Your task to perform on an android device: Open Youtube and go to the subscriptions tab Image 0: 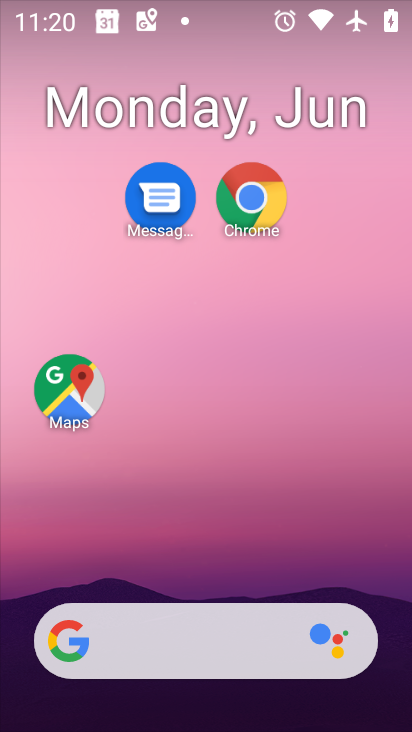
Step 0: drag from (202, 575) to (229, 106)
Your task to perform on an android device: Open Youtube and go to the subscriptions tab Image 1: 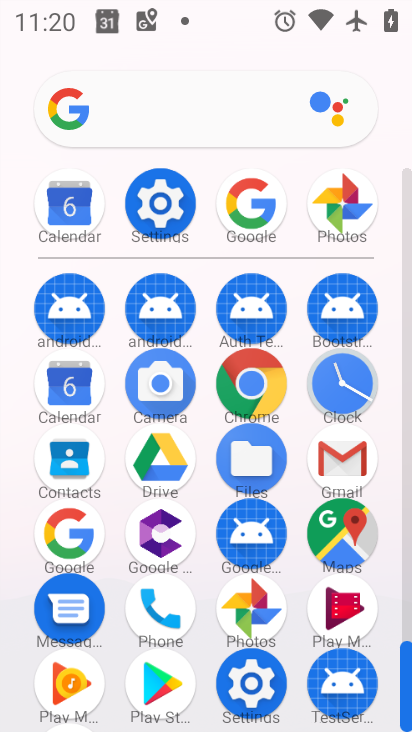
Step 1: drag from (288, 585) to (285, 297)
Your task to perform on an android device: Open Youtube and go to the subscriptions tab Image 2: 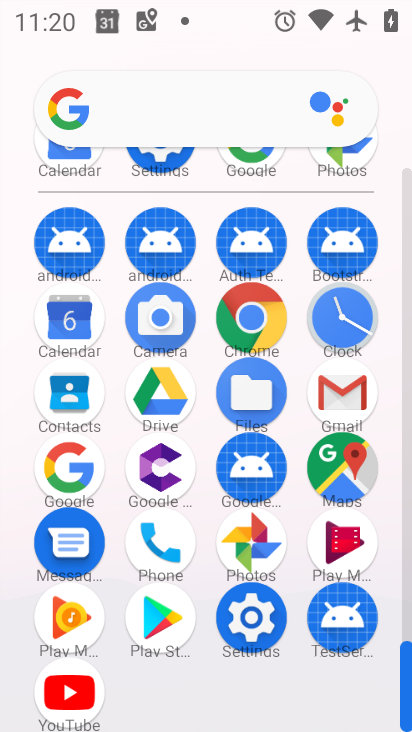
Step 2: click (73, 672)
Your task to perform on an android device: Open Youtube and go to the subscriptions tab Image 3: 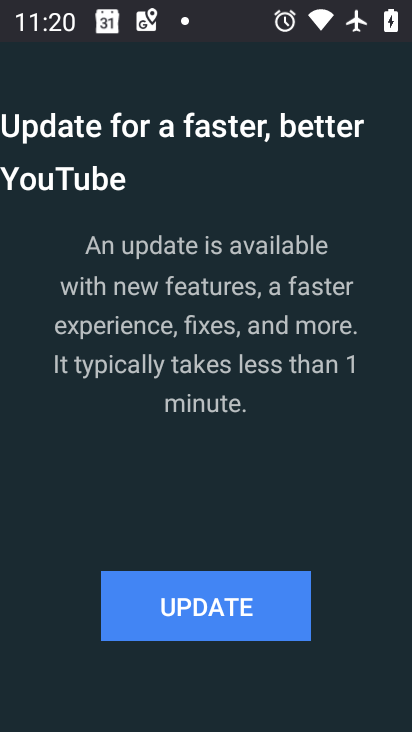
Step 3: click (229, 629)
Your task to perform on an android device: Open Youtube and go to the subscriptions tab Image 4: 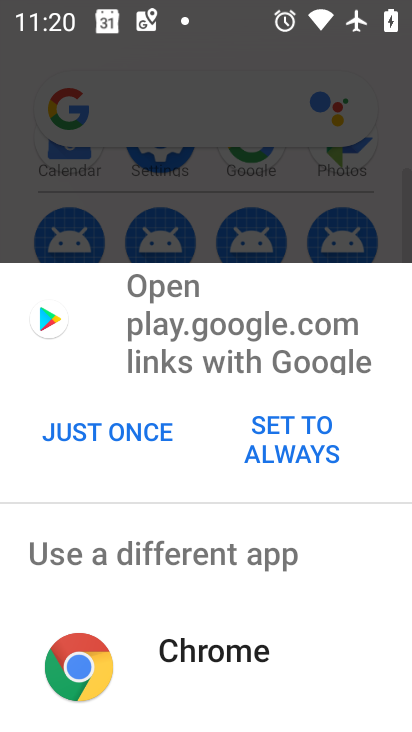
Step 4: click (169, 421)
Your task to perform on an android device: Open Youtube and go to the subscriptions tab Image 5: 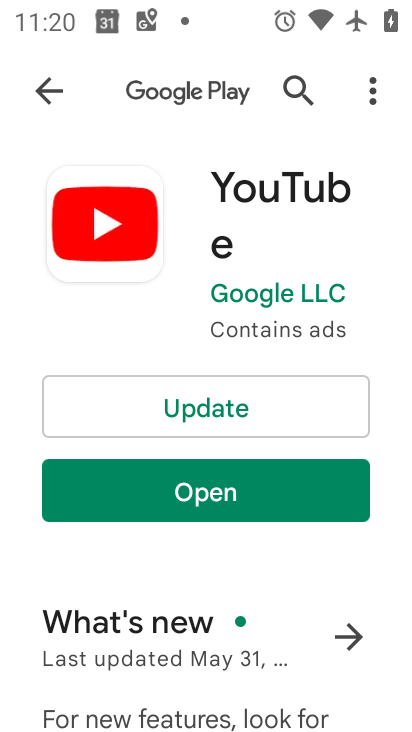
Step 5: click (194, 410)
Your task to perform on an android device: Open Youtube and go to the subscriptions tab Image 6: 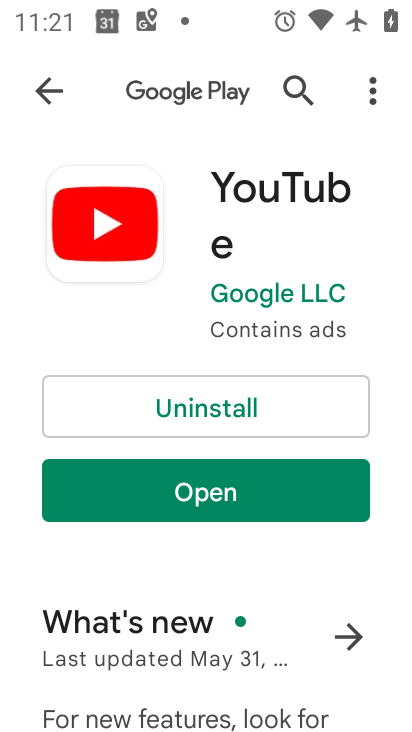
Step 6: click (261, 511)
Your task to perform on an android device: Open Youtube and go to the subscriptions tab Image 7: 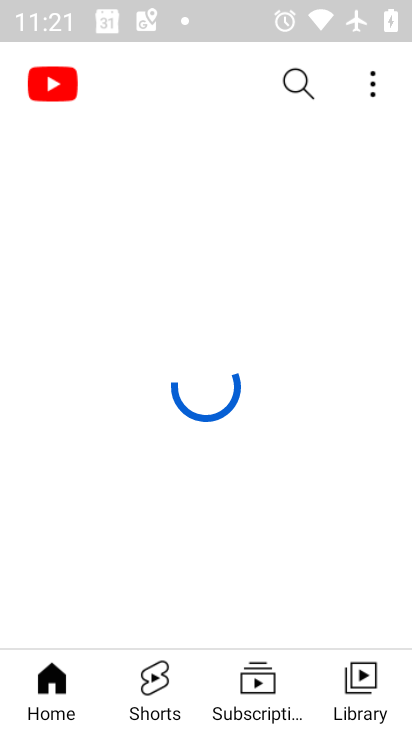
Step 7: click (259, 699)
Your task to perform on an android device: Open Youtube and go to the subscriptions tab Image 8: 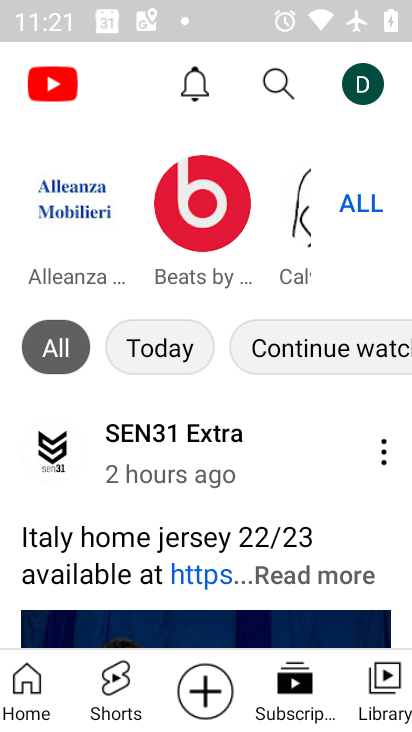
Step 8: task complete